Your task to perform on an android device: Go to battery settings Image 0: 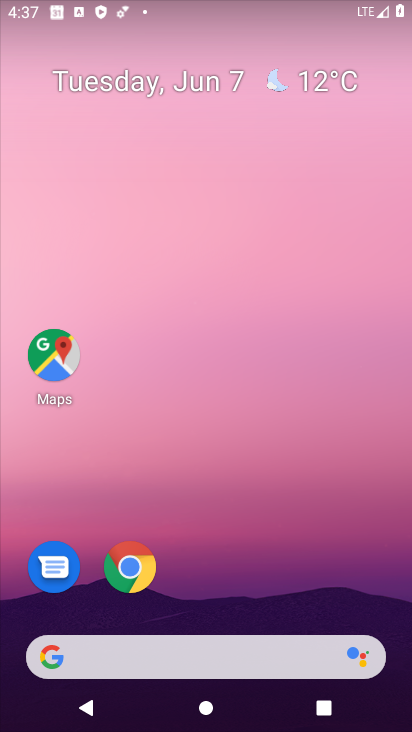
Step 0: drag from (264, 669) to (243, 58)
Your task to perform on an android device: Go to battery settings Image 1: 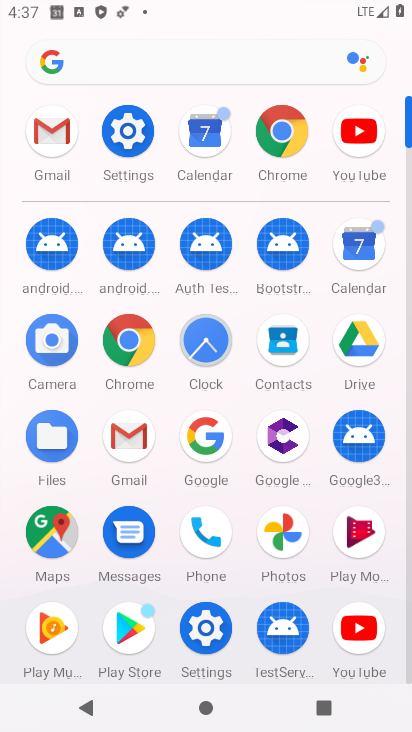
Step 1: click (131, 131)
Your task to perform on an android device: Go to battery settings Image 2: 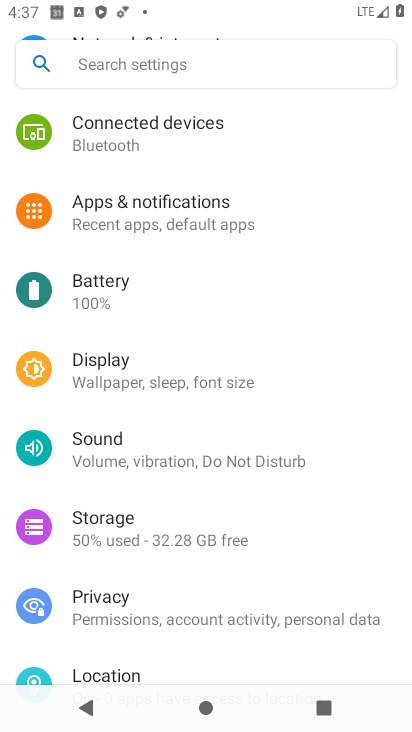
Step 2: click (158, 294)
Your task to perform on an android device: Go to battery settings Image 3: 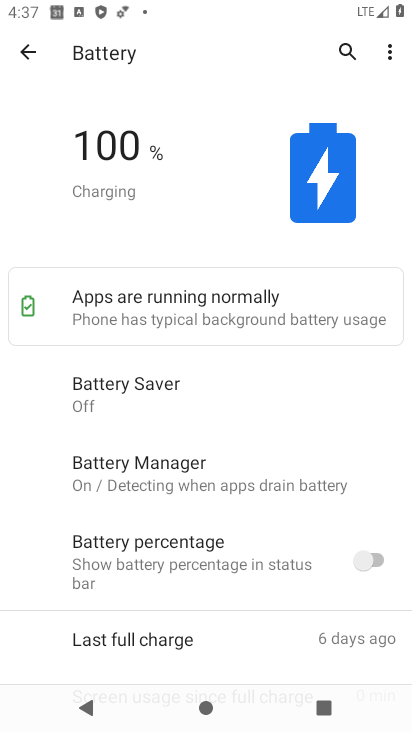
Step 3: task complete